Your task to perform on an android device: turn on showing notifications on the lock screen Image 0: 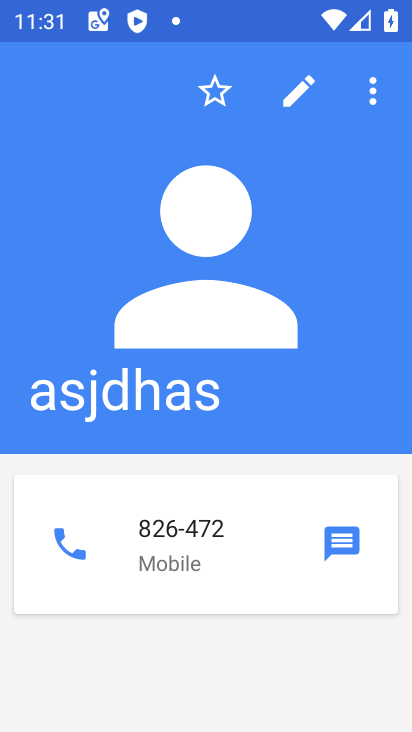
Step 0: press back button
Your task to perform on an android device: turn on showing notifications on the lock screen Image 1: 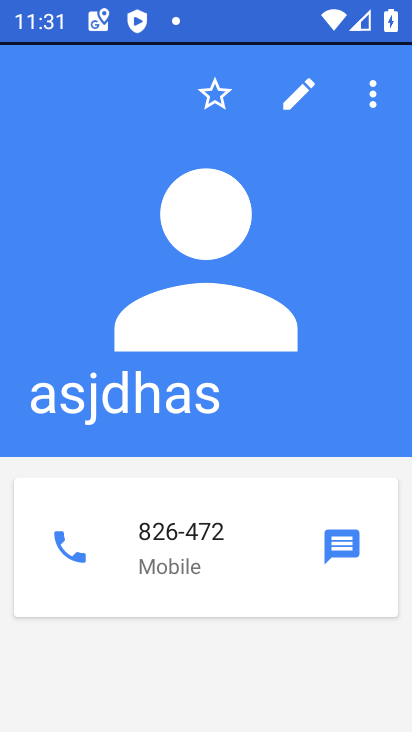
Step 1: press back button
Your task to perform on an android device: turn on showing notifications on the lock screen Image 2: 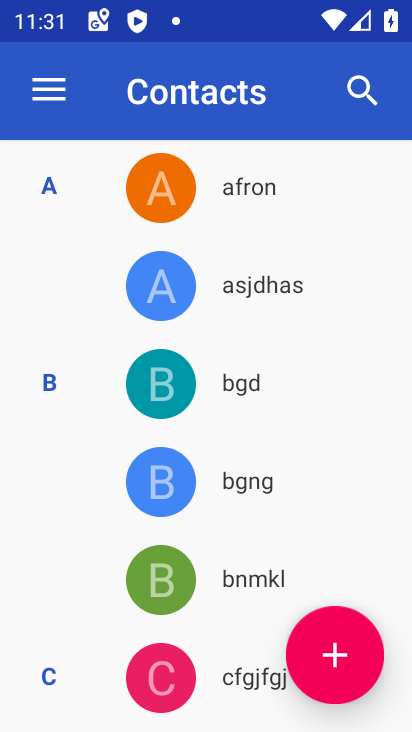
Step 2: press back button
Your task to perform on an android device: turn on showing notifications on the lock screen Image 3: 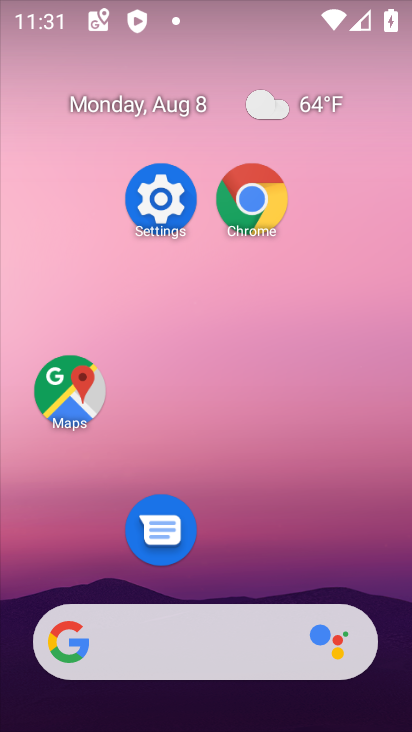
Step 3: press home button
Your task to perform on an android device: turn on showing notifications on the lock screen Image 4: 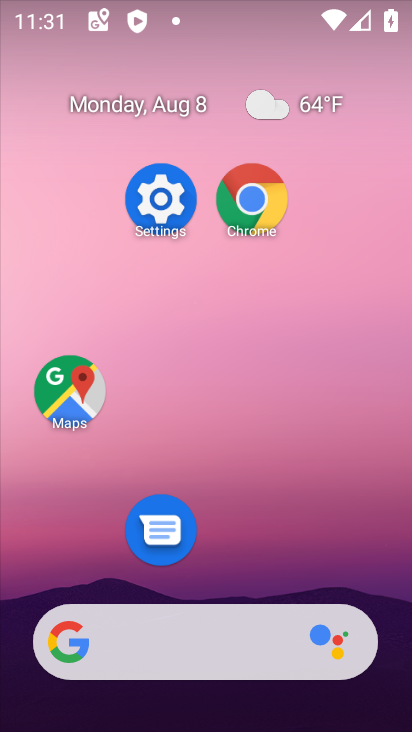
Step 4: drag from (267, 641) to (217, 230)
Your task to perform on an android device: turn on showing notifications on the lock screen Image 5: 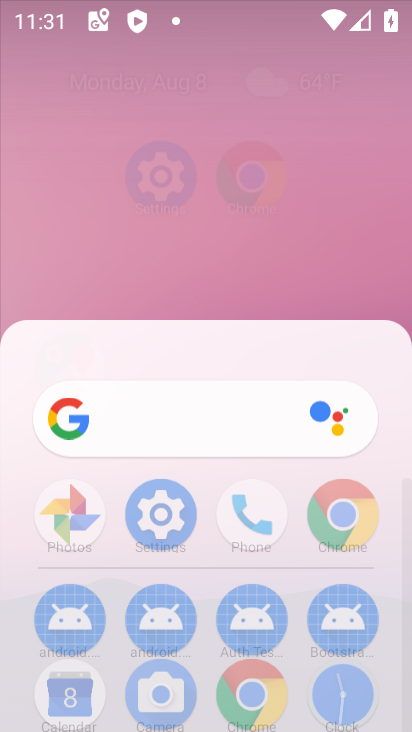
Step 5: drag from (293, 579) to (259, 265)
Your task to perform on an android device: turn on showing notifications on the lock screen Image 6: 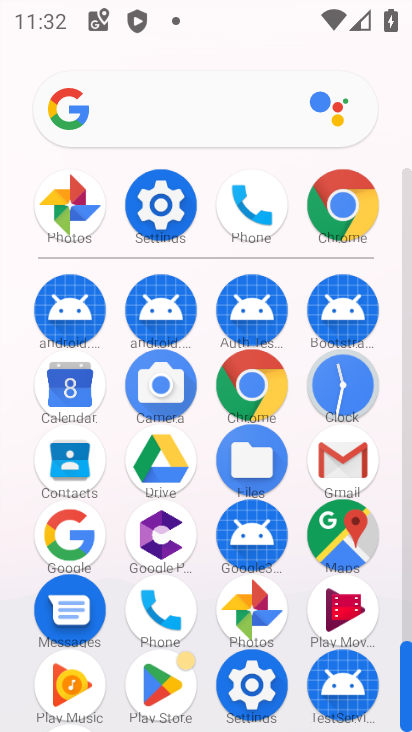
Step 6: click (169, 198)
Your task to perform on an android device: turn on showing notifications on the lock screen Image 7: 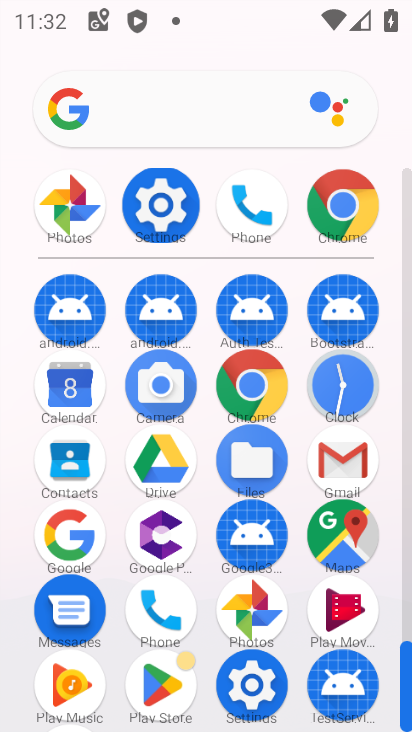
Step 7: click (170, 202)
Your task to perform on an android device: turn on showing notifications on the lock screen Image 8: 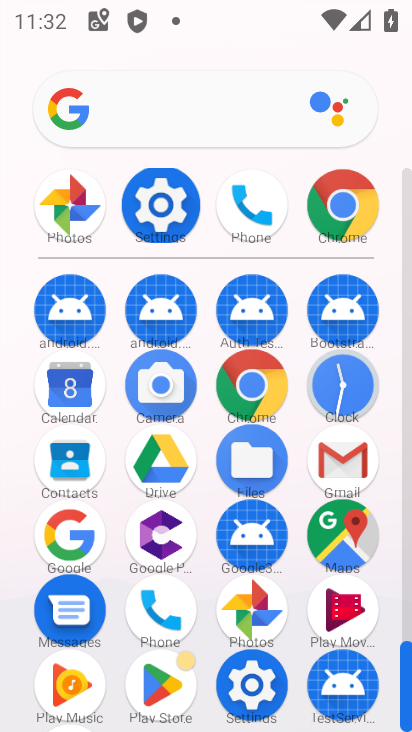
Step 8: click (175, 210)
Your task to perform on an android device: turn on showing notifications on the lock screen Image 9: 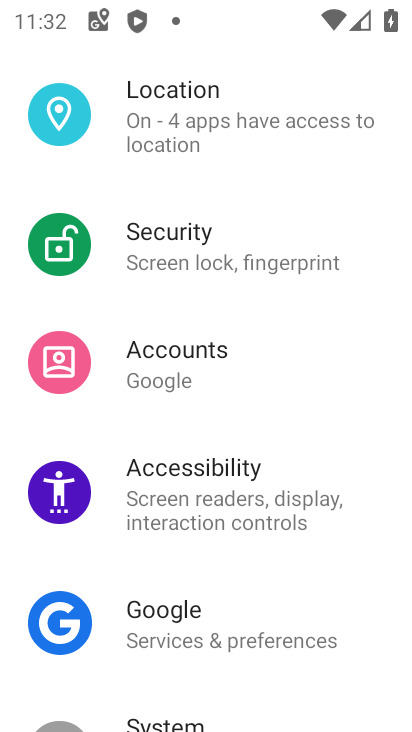
Step 9: drag from (185, 547) to (188, 324)
Your task to perform on an android device: turn on showing notifications on the lock screen Image 10: 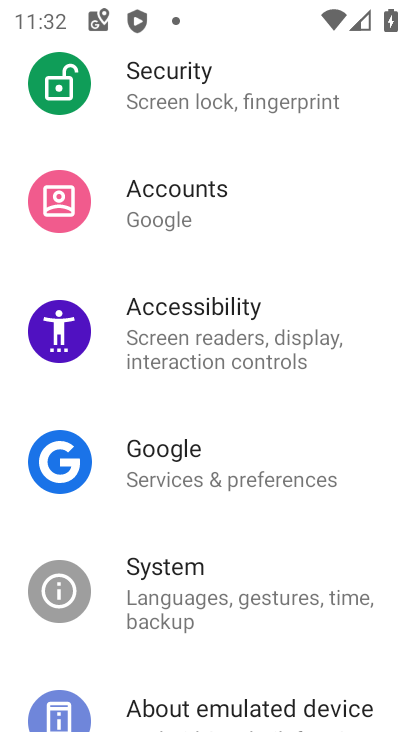
Step 10: drag from (262, 443) to (247, 209)
Your task to perform on an android device: turn on showing notifications on the lock screen Image 11: 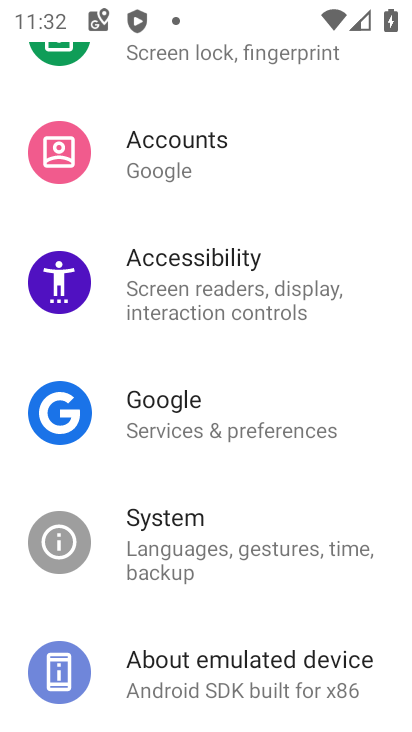
Step 11: drag from (207, 319) to (275, 602)
Your task to perform on an android device: turn on showing notifications on the lock screen Image 12: 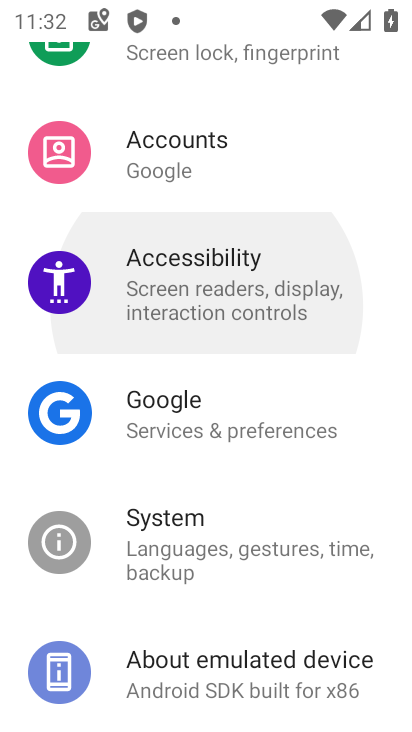
Step 12: drag from (157, 298) to (196, 545)
Your task to perform on an android device: turn on showing notifications on the lock screen Image 13: 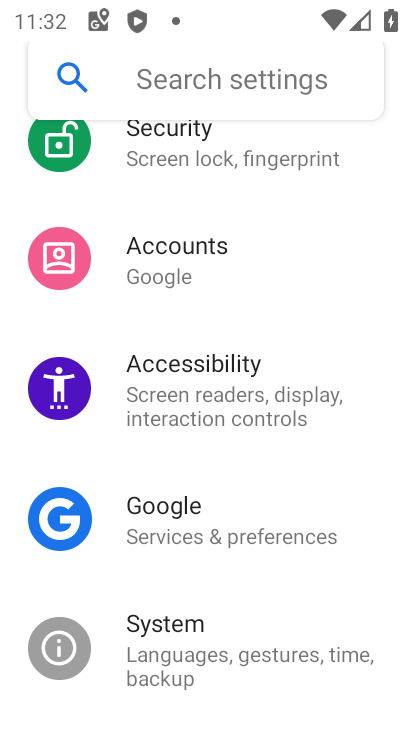
Step 13: drag from (158, 344) to (234, 579)
Your task to perform on an android device: turn on showing notifications on the lock screen Image 14: 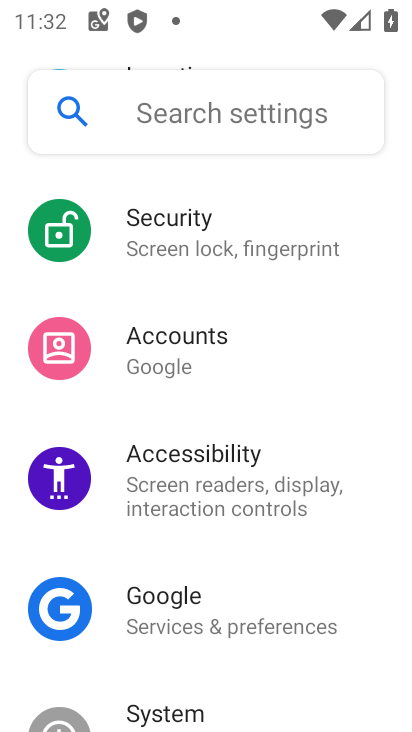
Step 14: drag from (222, 301) to (250, 567)
Your task to perform on an android device: turn on showing notifications on the lock screen Image 15: 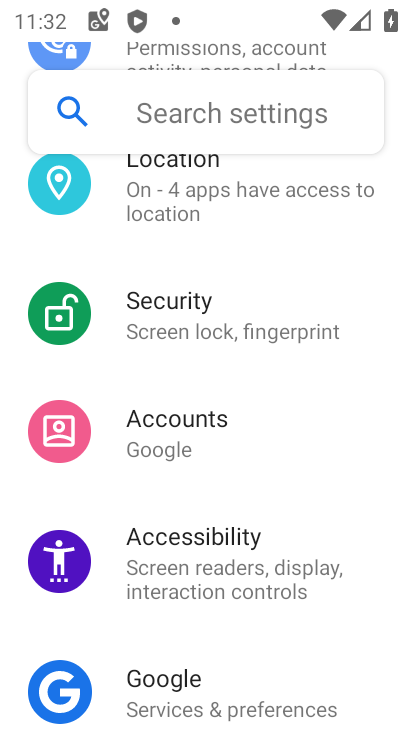
Step 15: drag from (183, 524) to (200, 610)
Your task to perform on an android device: turn on showing notifications on the lock screen Image 16: 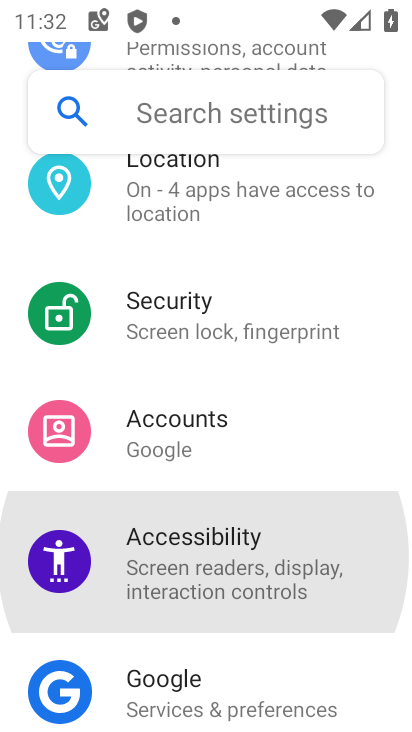
Step 16: drag from (205, 410) to (260, 660)
Your task to perform on an android device: turn on showing notifications on the lock screen Image 17: 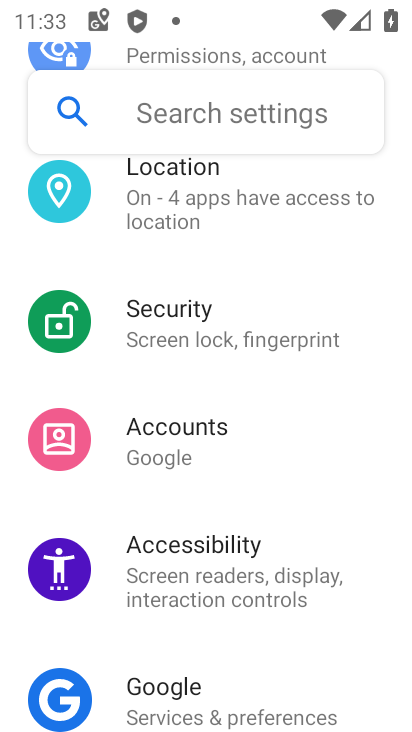
Step 17: drag from (193, 326) to (233, 721)
Your task to perform on an android device: turn on showing notifications on the lock screen Image 18: 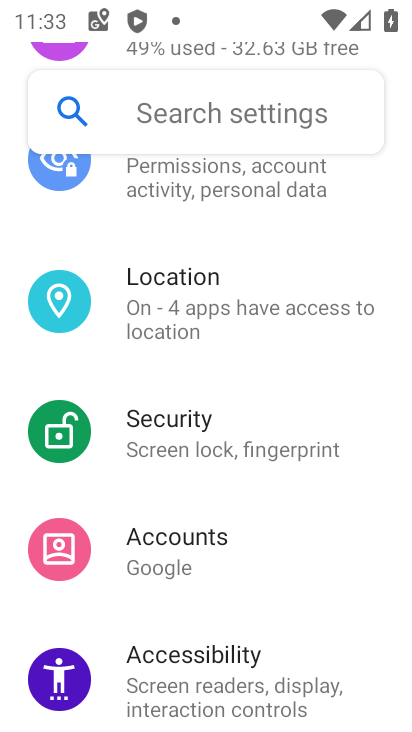
Step 18: drag from (206, 412) to (239, 654)
Your task to perform on an android device: turn on showing notifications on the lock screen Image 19: 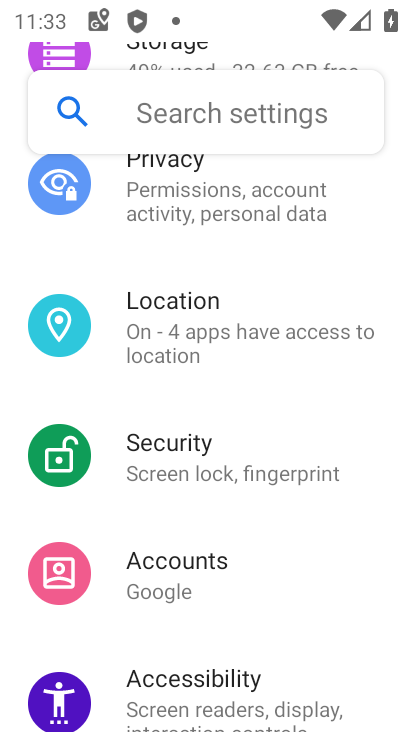
Step 19: drag from (184, 430) to (234, 680)
Your task to perform on an android device: turn on showing notifications on the lock screen Image 20: 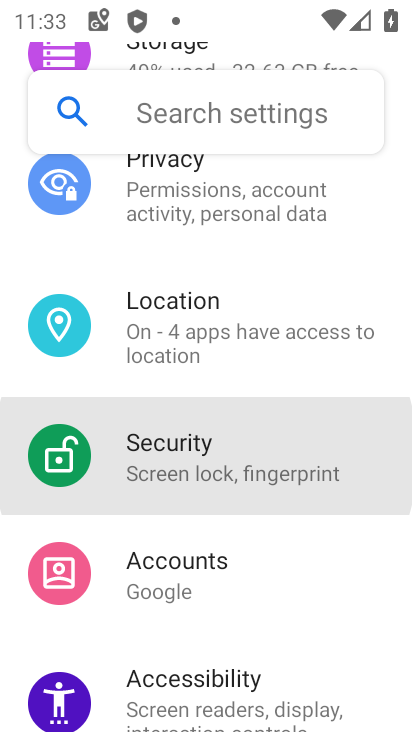
Step 20: drag from (227, 412) to (278, 680)
Your task to perform on an android device: turn on showing notifications on the lock screen Image 21: 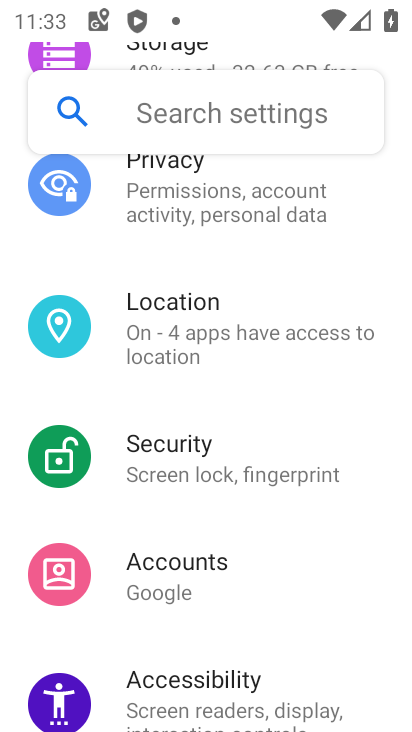
Step 21: drag from (229, 433) to (254, 580)
Your task to perform on an android device: turn on showing notifications on the lock screen Image 22: 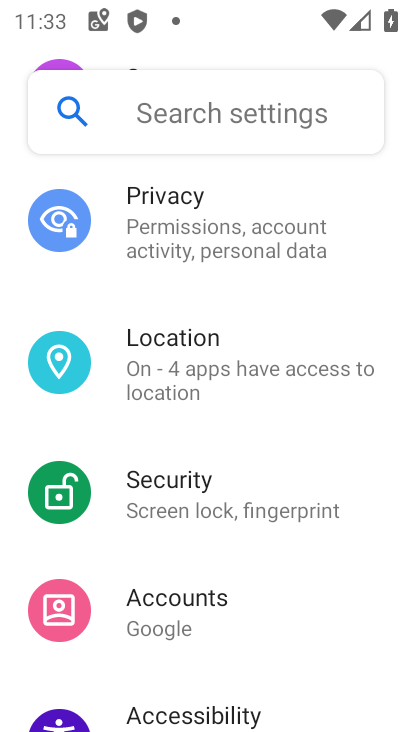
Step 22: drag from (181, 231) to (200, 460)
Your task to perform on an android device: turn on showing notifications on the lock screen Image 23: 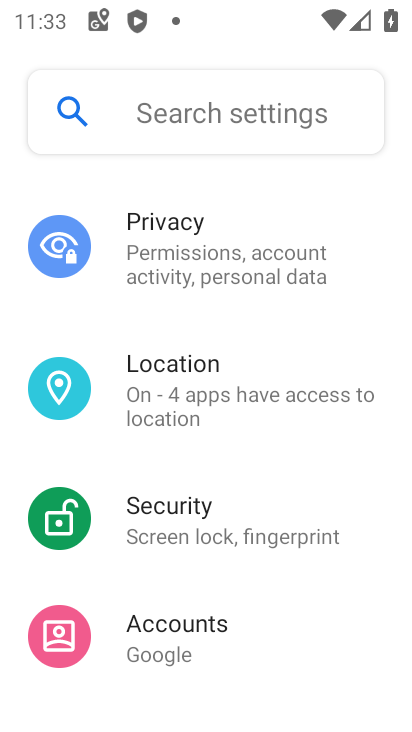
Step 23: drag from (183, 359) to (202, 573)
Your task to perform on an android device: turn on showing notifications on the lock screen Image 24: 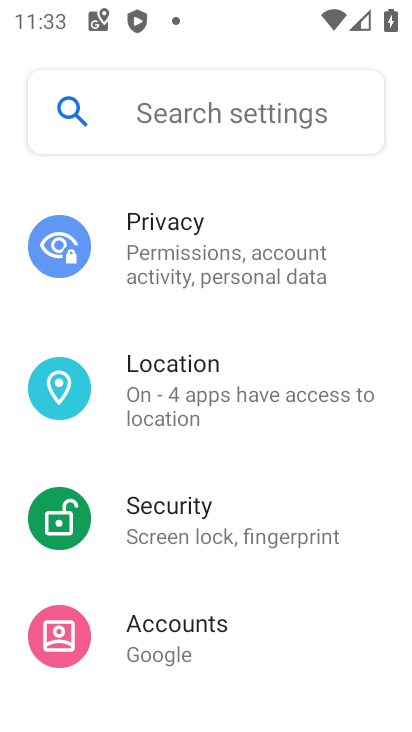
Step 24: drag from (178, 385) to (211, 558)
Your task to perform on an android device: turn on showing notifications on the lock screen Image 25: 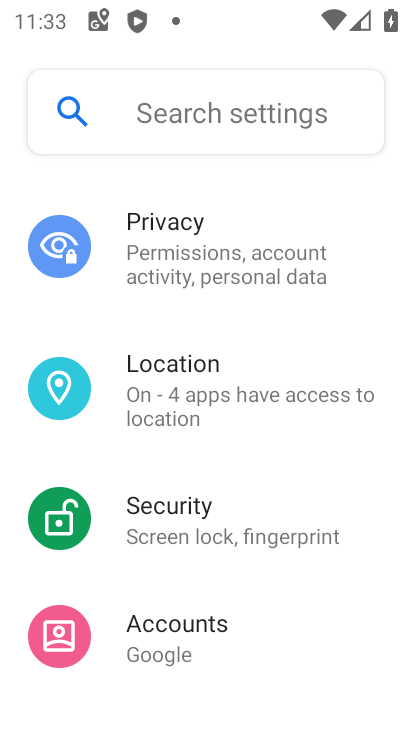
Step 25: drag from (210, 553) to (217, 243)
Your task to perform on an android device: turn on showing notifications on the lock screen Image 26: 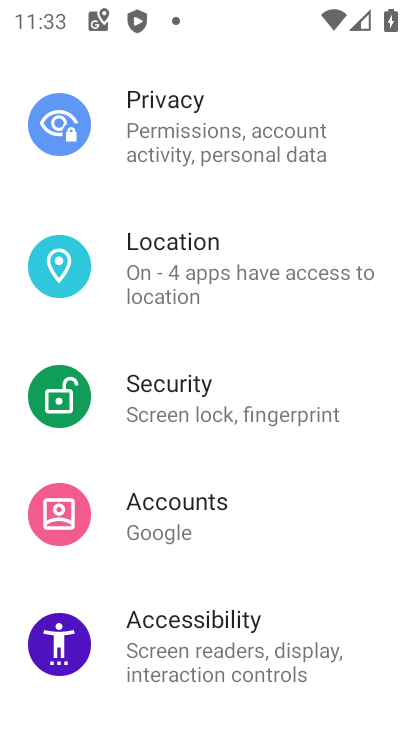
Step 26: drag from (240, 517) to (240, 275)
Your task to perform on an android device: turn on showing notifications on the lock screen Image 27: 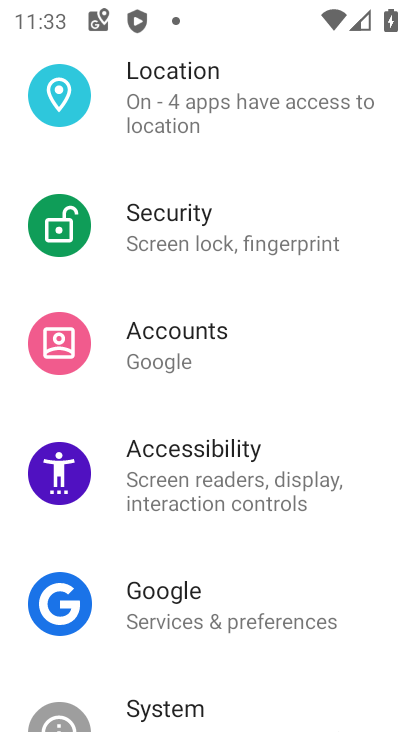
Step 27: drag from (228, 412) to (225, 306)
Your task to perform on an android device: turn on showing notifications on the lock screen Image 28: 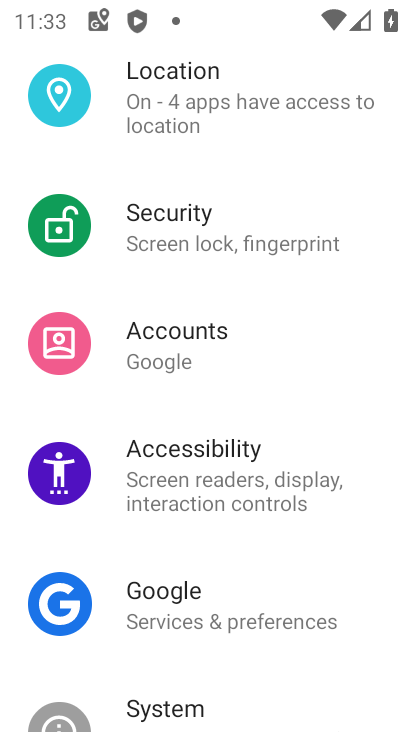
Step 28: drag from (184, 328) to (186, 523)
Your task to perform on an android device: turn on showing notifications on the lock screen Image 29: 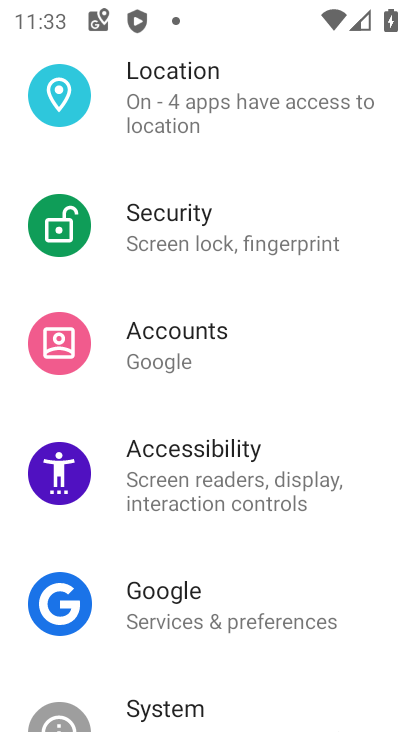
Step 29: drag from (161, 279) to (189, 516)
Your task to perform on an android device: turn on showing notifications on the lock screen Image 30: 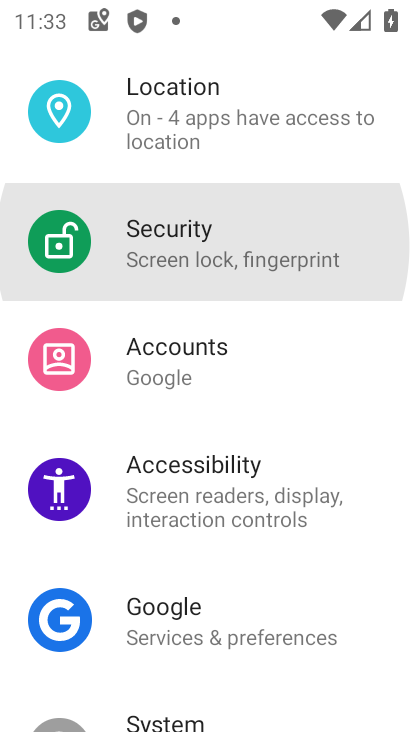
Step 30: drag from (194, 326) to (261, 651)
Your task to perform on an android device: turn on showing notifications on the lock screen Image 31: 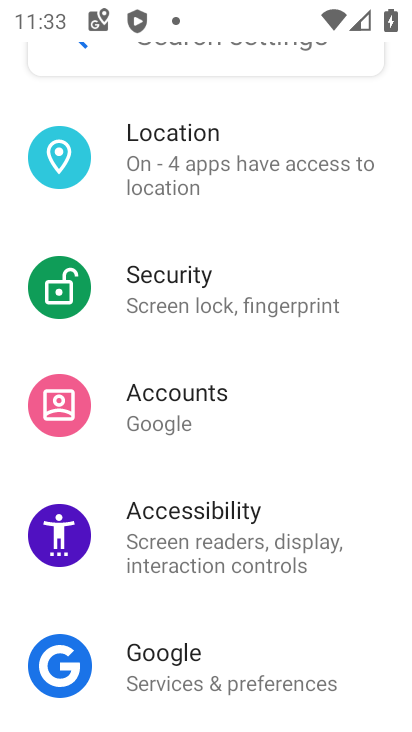
Step 31: drag from (209, 377) to (238, 585)
Your task to perform on an android device: turn on showing notifications on the lock screen Image 32: 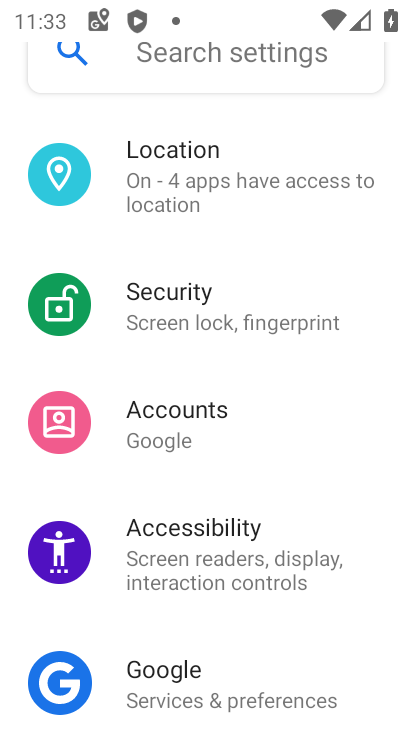
Step 32: drag from (184, 657) to (172, 314)
Your task to perform on an android device: turn on showing notifications on the lock screen Image 33: 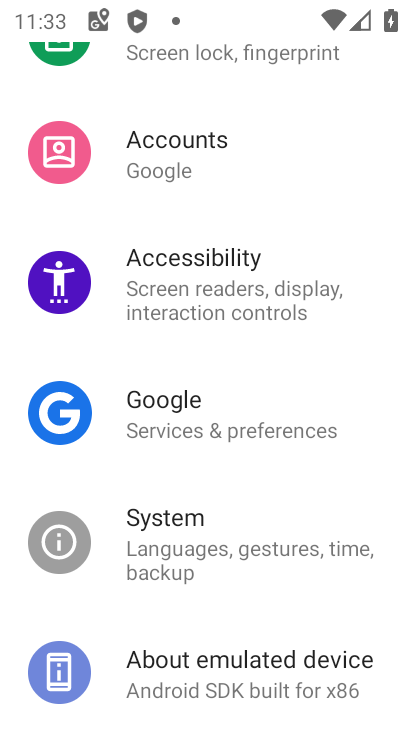
Step 33: drag from (202, 579) to (141, 366)
Your task to perform on an android device: turn on showing notifications on the lock screen Image 34: 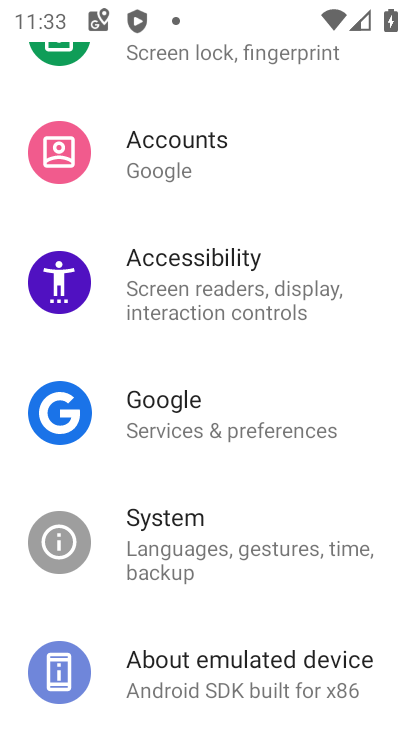
Step 34: drag from (194, 241) to (246, 657)
Your task to perform on an android device: turn on showing notifications on the lock screen Image 35: 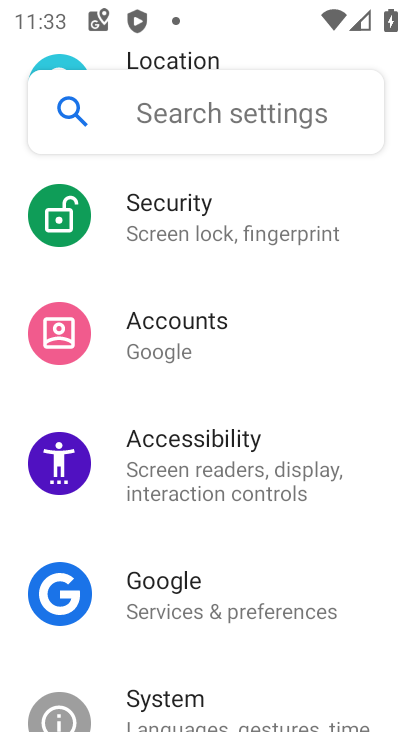
Step 35: drag from (201, 507) to (251, 720)
Your task to perform on an android device: turn on showing notifications on the lock screen Image 36: 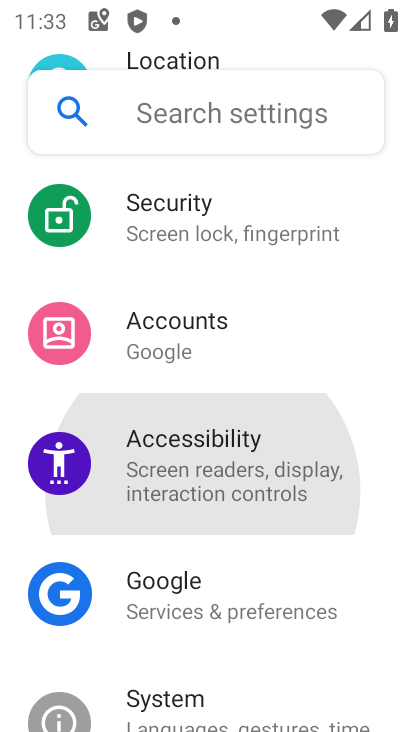
Step 36: drag from (184, 208) to (222, 539)
Your task to perform on an android device: turn on showing notifications on the lock screen Image 37: 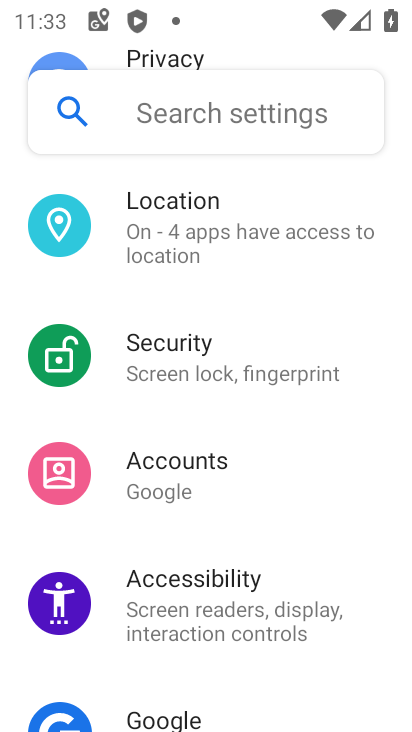
Step 37: drag from (218, 377) to (235, 581)
Your task to perform on an android device: turn on showing notifications on the lock screen Image 38: 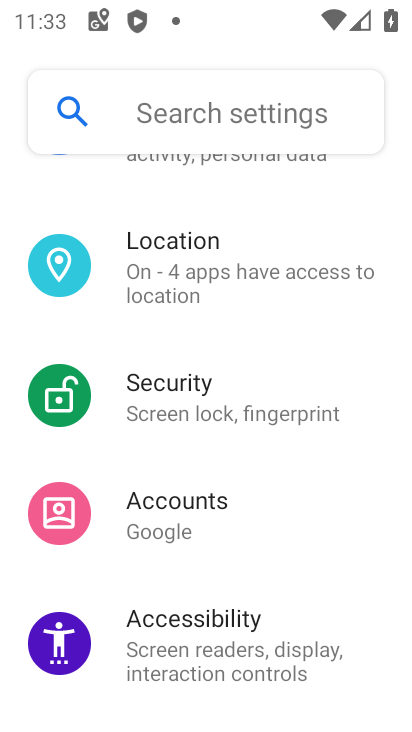
Step 38: drag from (177, 335) to (198, 578)
Your task to perform on an android device: turn on showing notifications on the lock screen Image 39: 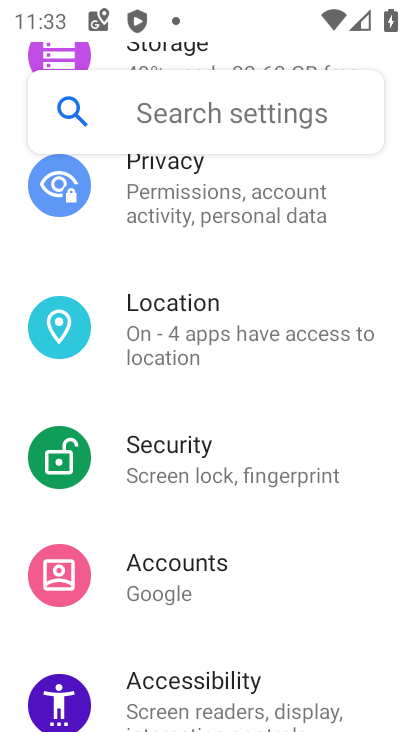
Step 39: drag from (167, 221) to (245, 605)
Your task to perform on an android device: turn on showing notifications on the lock screen Image 40: 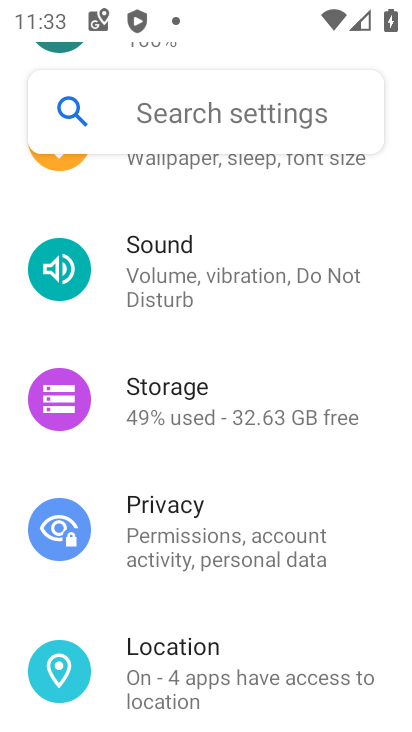
Step 40: drag from (209, 425) to (251, 579)
Your task to perform on an android device: turn on showing notifications on the lock screen Image 41: 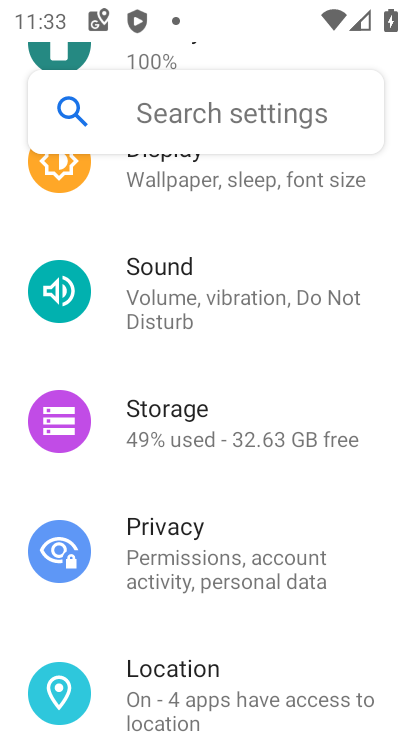
Step 41: drag from (217, 279) to (242, 578)
Your task to perform on an android device: turn on showing notifications on the lock screen Image 42: 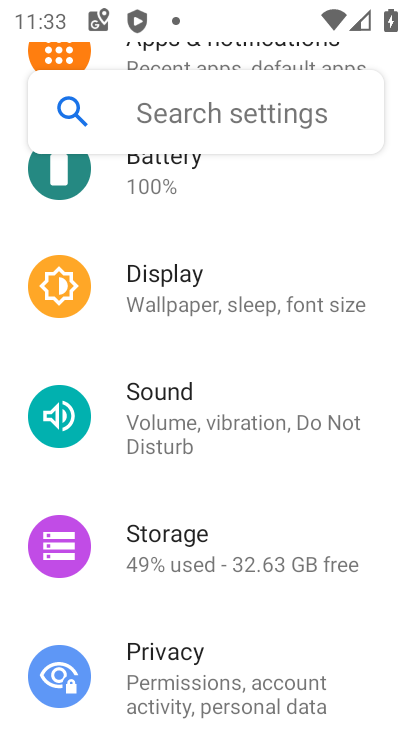
Step 42: drag from (220, 389) to (251, 680)
Your task to perform on an android device: turn on showing notifications on the lock screen Image 43: 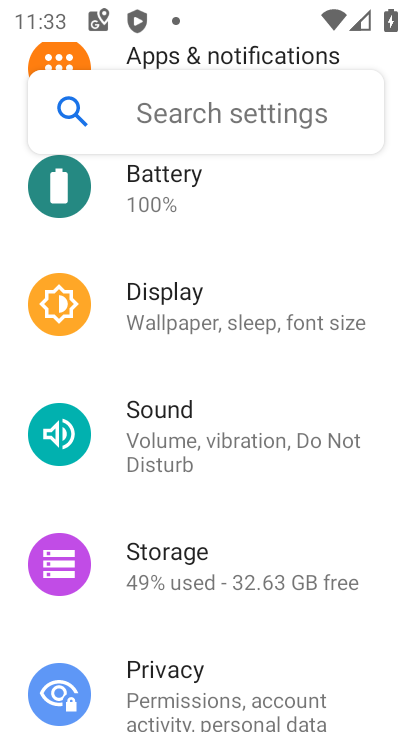
Step 43: drag from (200, 278) to (208, 590)
Your task to perform on an android device: turn on showing notifications on the lock screen Image 44: 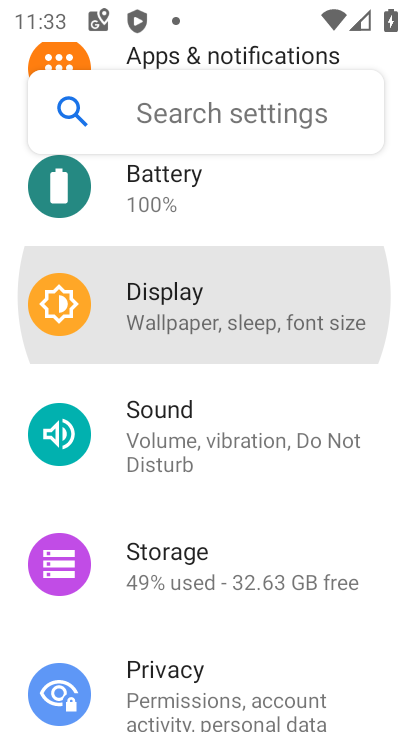
Step 44: drag from (185, 326) to (216, 623)
Your task to perform on an android device: turn on showing notifications on the lock screen Image 45: 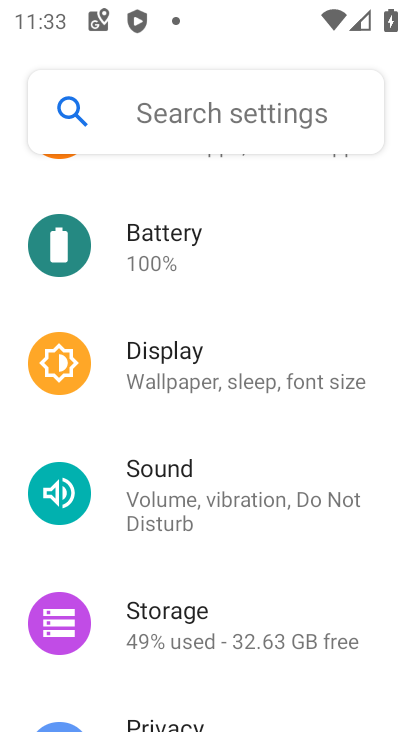
Step 45: drag from (247, 317) to (265, 670)
Your task to perform on an android device: turn on showing notifications on the lock screen Image 46: 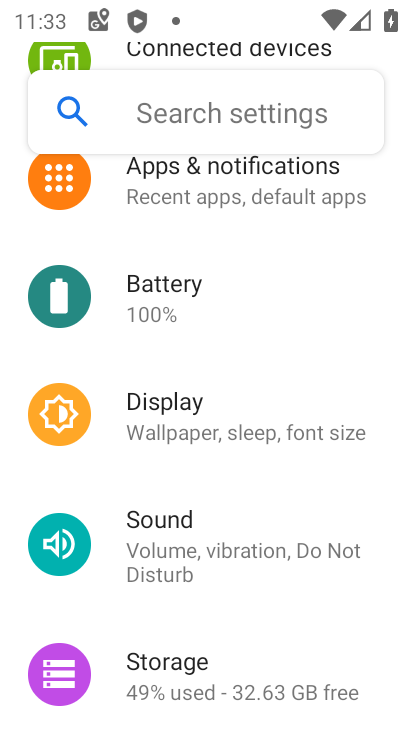
Step 46: click (183, 174)
Your task to perform on an android device: turn on showing notifications on the lock screen Image 47: 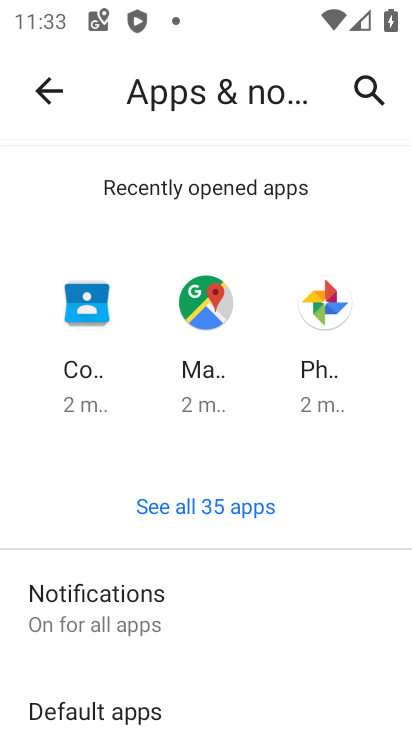
Step 47: click (95, 618)
Your task to perform on an android device: turn on showing notifications on the lock screen Image 48: 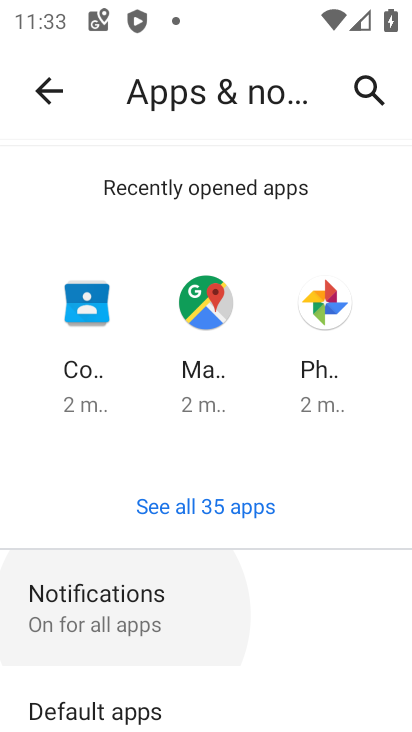
Step 48: click (95, 618)
Your task to perform on an android device: turn on showing notifications on the lock screen Image 49: 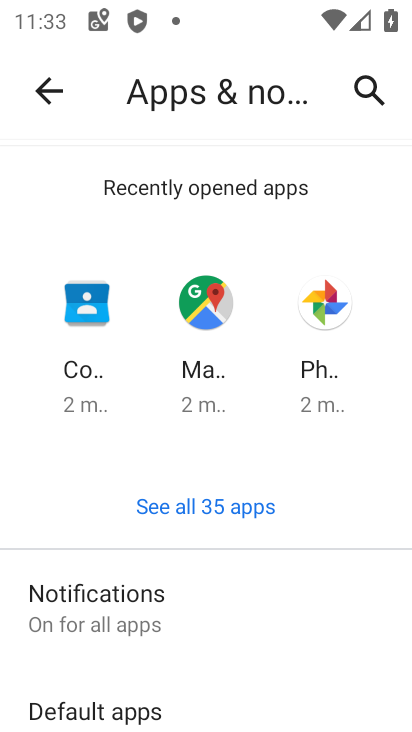
Step 49: click (98, 618)
Your task to perform on an android device: turn on showing notifications on the lock screen Image 50: 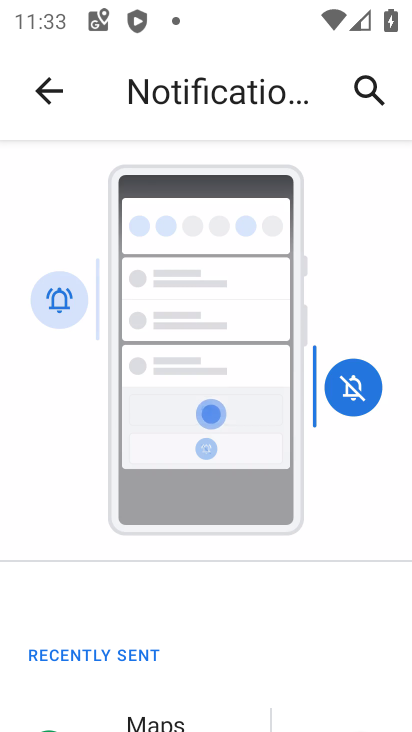
Step 50: task complete